Your task to perform on an android device: Go to privacy settings Image 0: 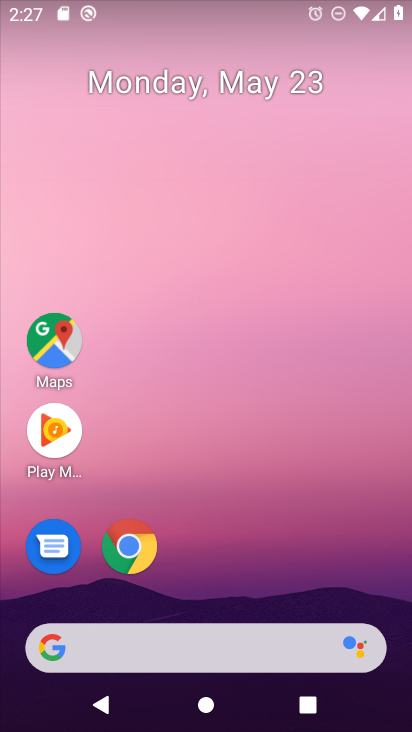
Step 0: drag from (200, 479) to (216, 250)
Your task to perform on an android device: Go to privacy settings Image 1: 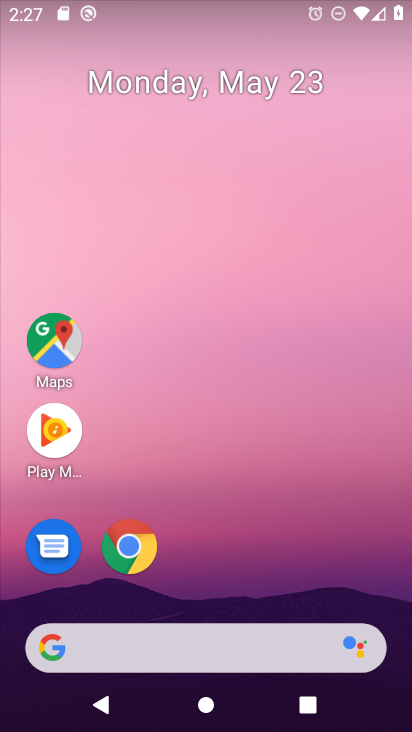
Step 1: drag from (201, 609) to (262, 178)
Your task to perform on an android device: Go to privacy settings Image 2: 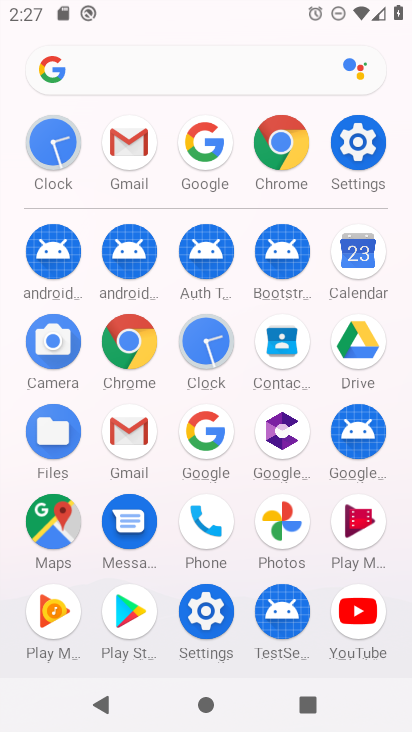
Step 2: click (362, 172)
Your task to perform on an android device: Go to privacy settings Image 3: 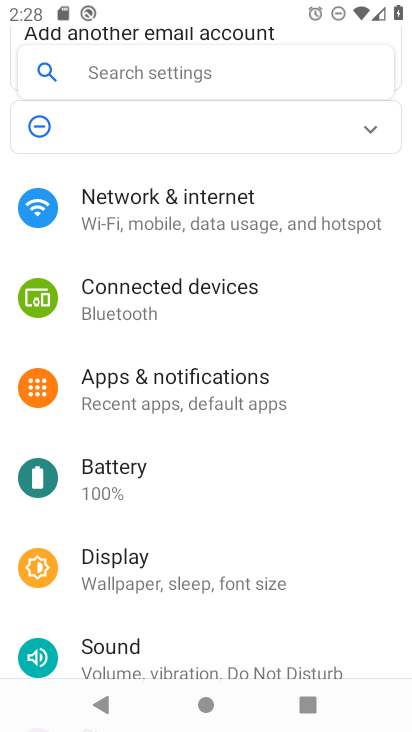
Step 3: drag from (105, 588) to (153, 293)
Your task to perform on an android device: Go to privacy settings Image 4: 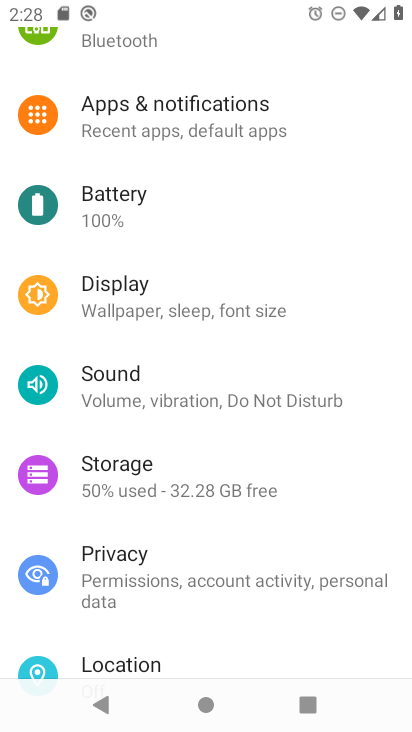
Step 4: click (133, 569)
Your task to perform on an android device: Go to privacy settings Image 5: 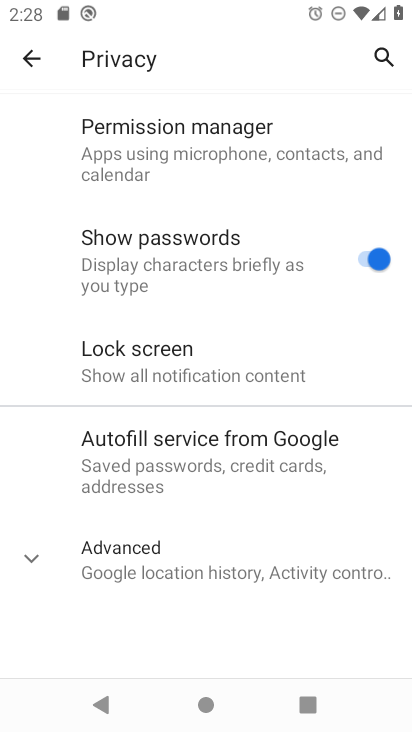
Step 5: task complete